Your task to perform on an android device: turn off wifi Image 0: 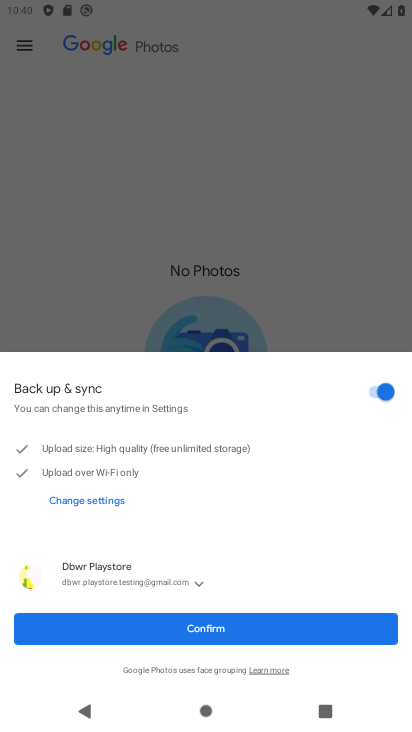
Step 0: press home button
Your task to perform on an android device: turn off wifi Image 1: 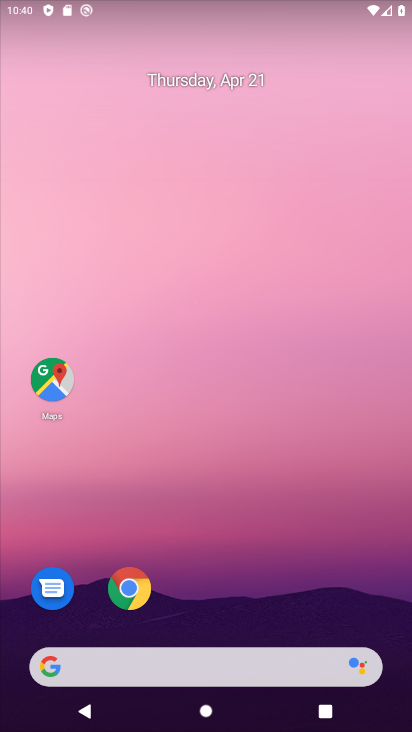
Step 1: drag from (195, 642) to (196, 187)
Your task to perform on an android device: turn off wifi Image 2: 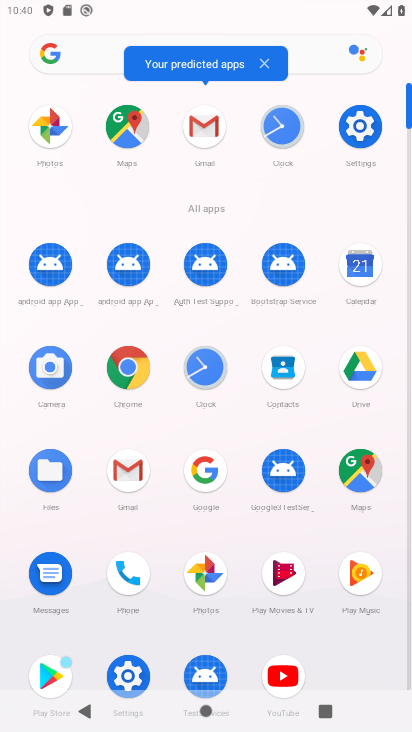
Step 2: click (361, 119)
Your task to perform on an android device: turn off wifi Image 3: 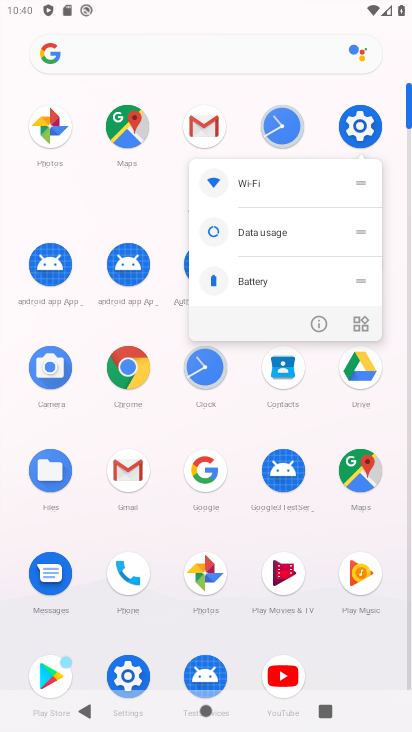
Step 3: click (358, 124)
Your task to perform on an android device: turn off wifi Image 4: 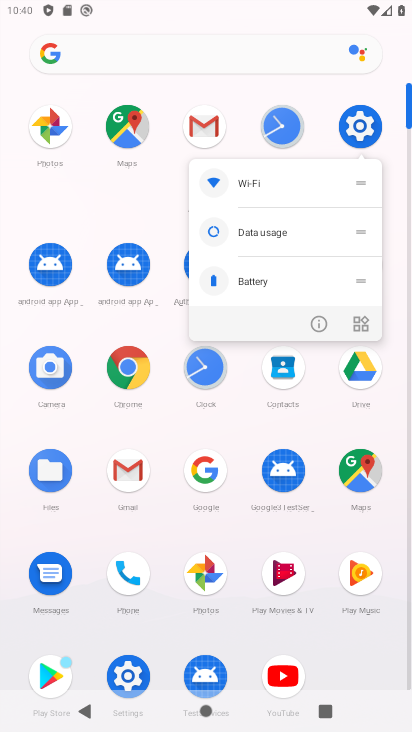
Step 4: click (358, 124)
Your task to perform on an android device: turn off wifi Image 5: 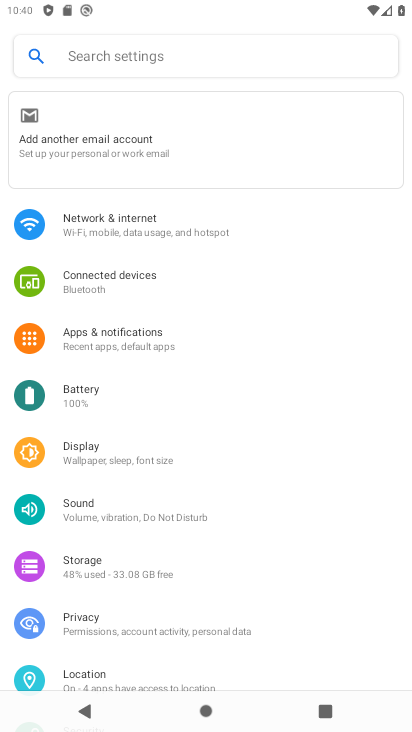
Step 5: click (175, 224)
Your task to perform on an android device: turn off wifi Image 6: 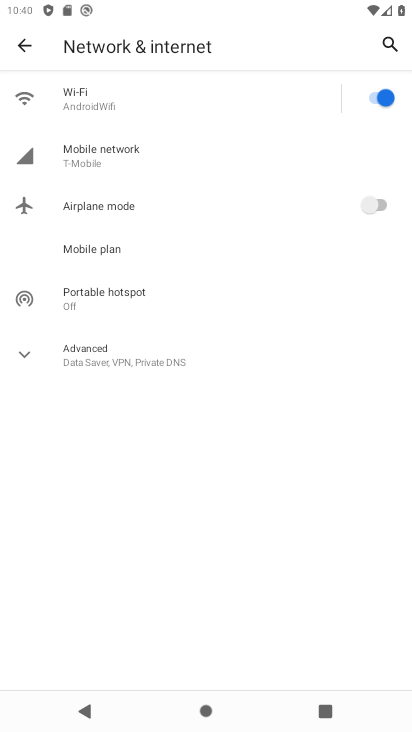
Step 6: click (376, 98)
Your task to perform on an android device: turn off wifi Image 7: 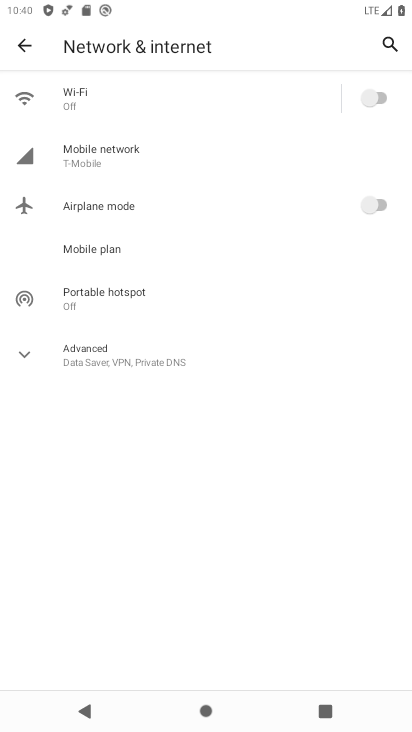
Step 7: task complete